Your task to perform on an android device: Open Yahoo.com Image 0: 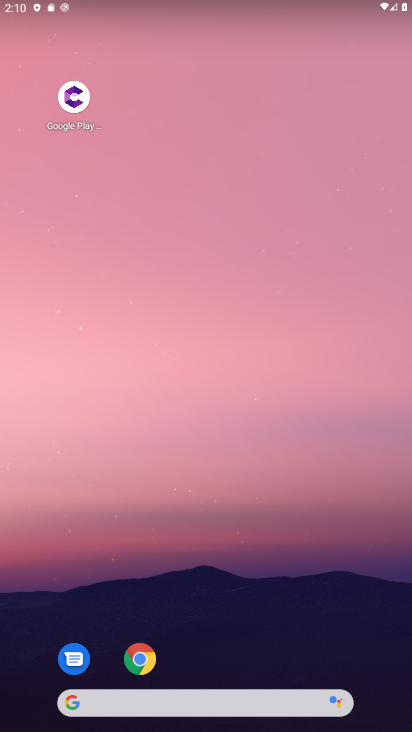
Step 0: click (136, 659)
Your task to perform on an android device: Open Yahoo.com Image 1: 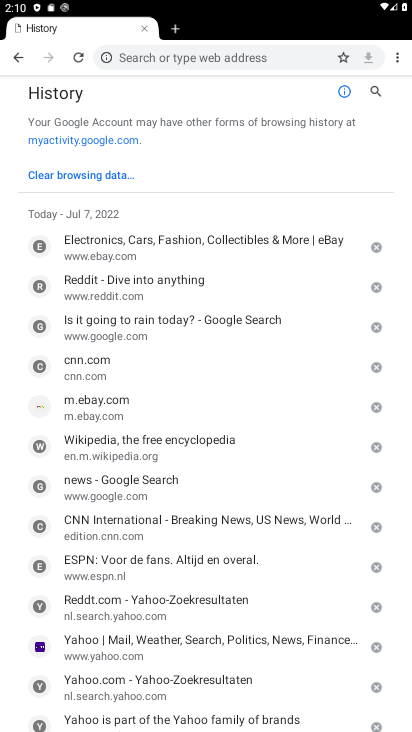
Step 1: click (180, 29)
Your task to perform on an android device: Open Yahoo.com Image 2: 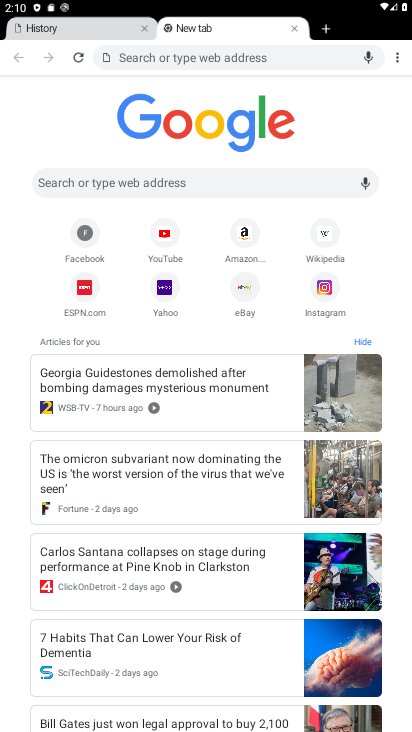
Step 2: click (167, 286)
Your task to perform on an android device: Open Yahoo.com Image 3: 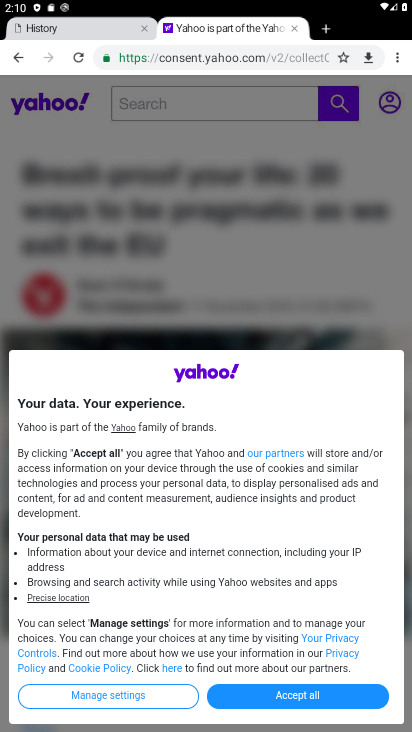
Step 3: click (297, 687)
Your task to perform on an android device: Open Yahoo.com Image 4: 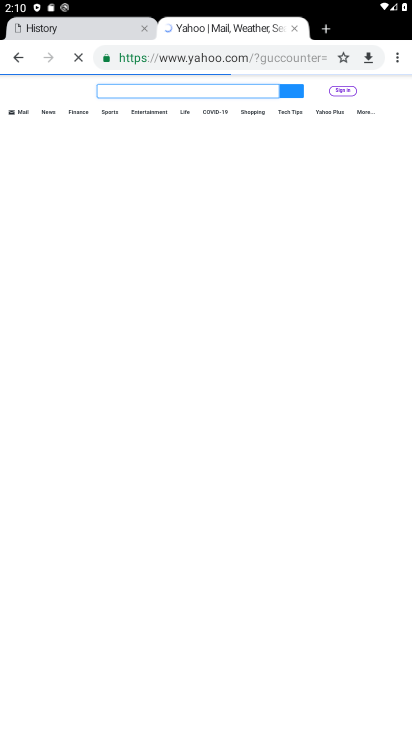
Step 4: click (300, 696)
Your task to perform on an android device: Open Yahoo.com Image 5: 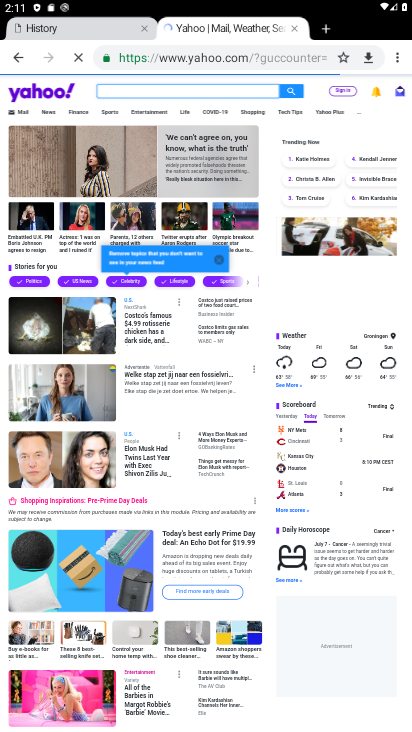
Step 5: task complete